Your task to perform on an android device: add a contact in the contacts app Image 0: 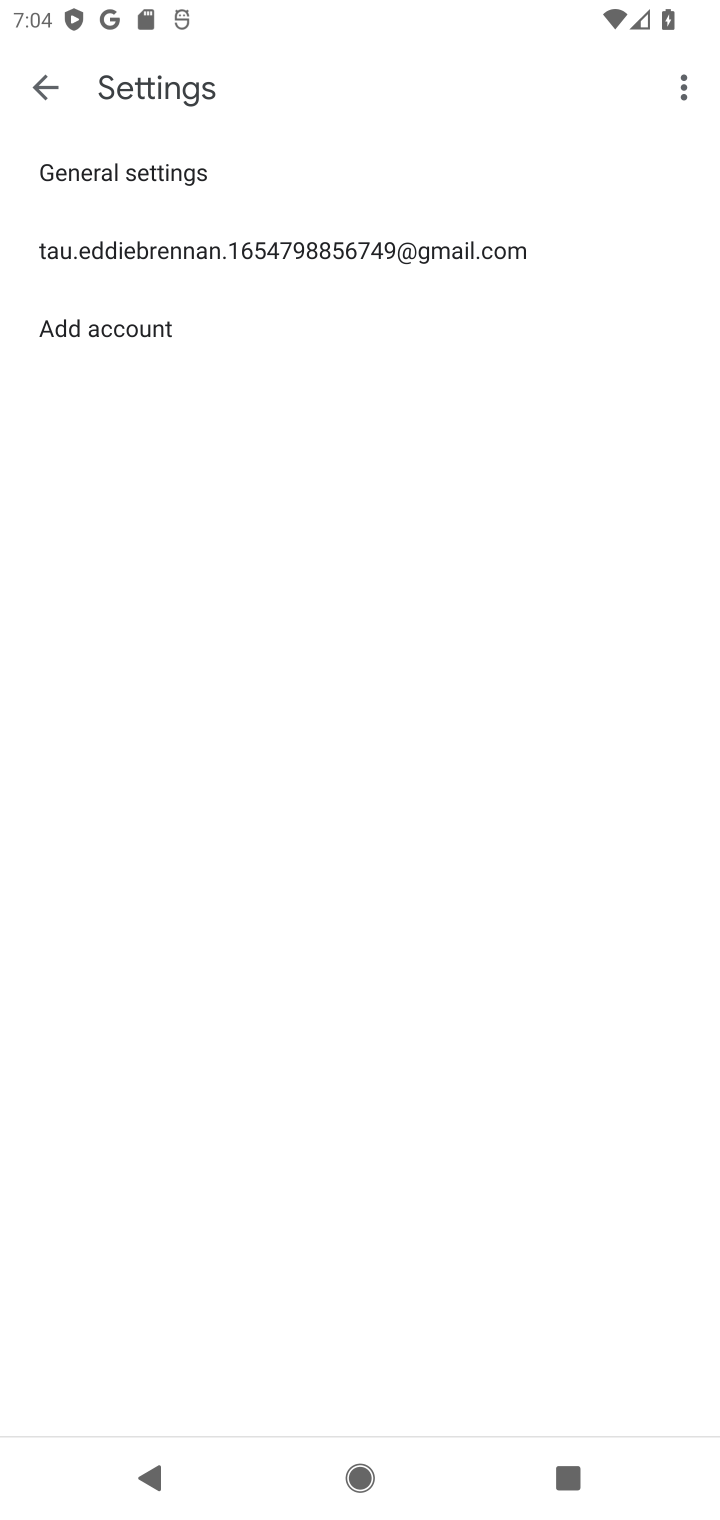
Step 0: press home button
Your task to perform on an android device: add a contact in the contacts app Image 1: 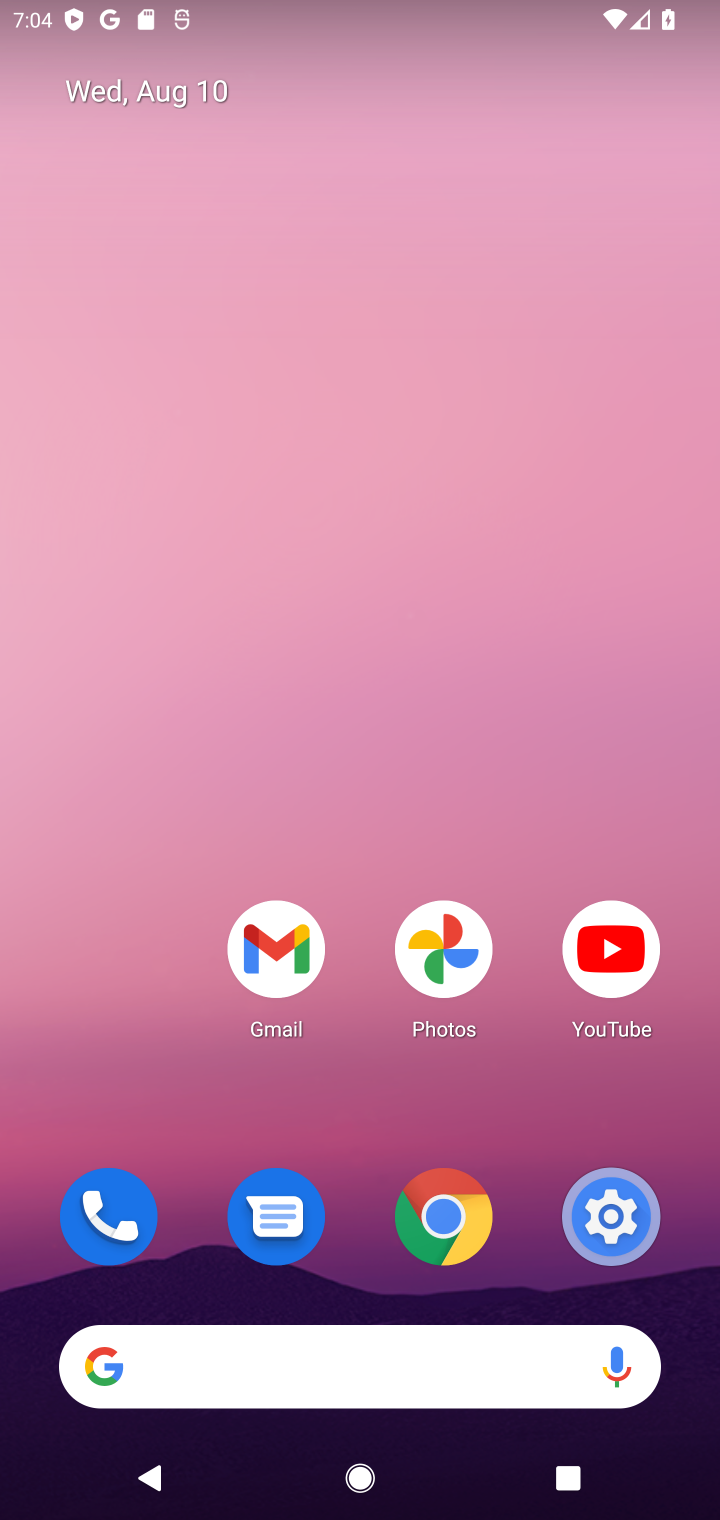
Step 1: click (132, 1210)
Your task to perform on an android device: add a contact in the contacts app Image 2: 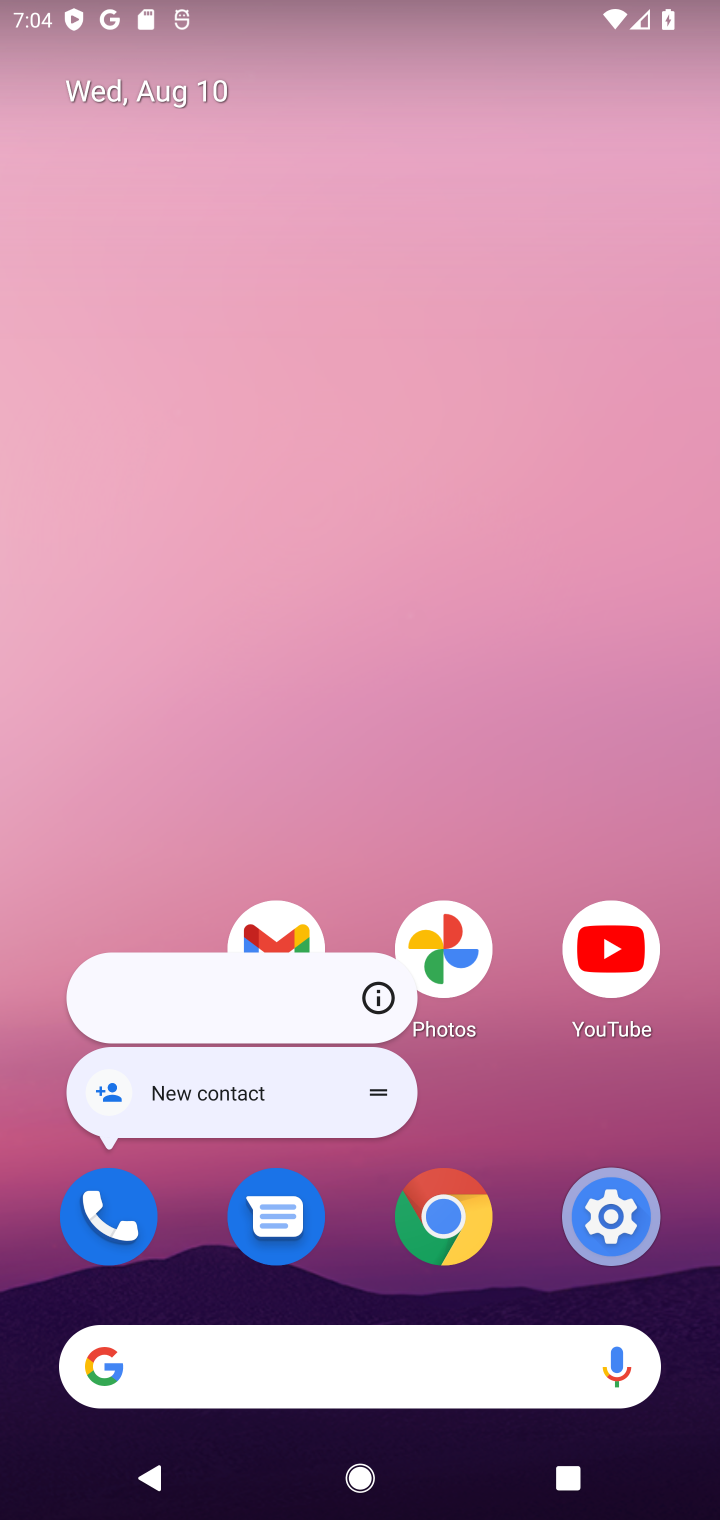
Step 2: click (210, 1102)
Your task to perform on an android device: add a contact in the contacts app Image 3: 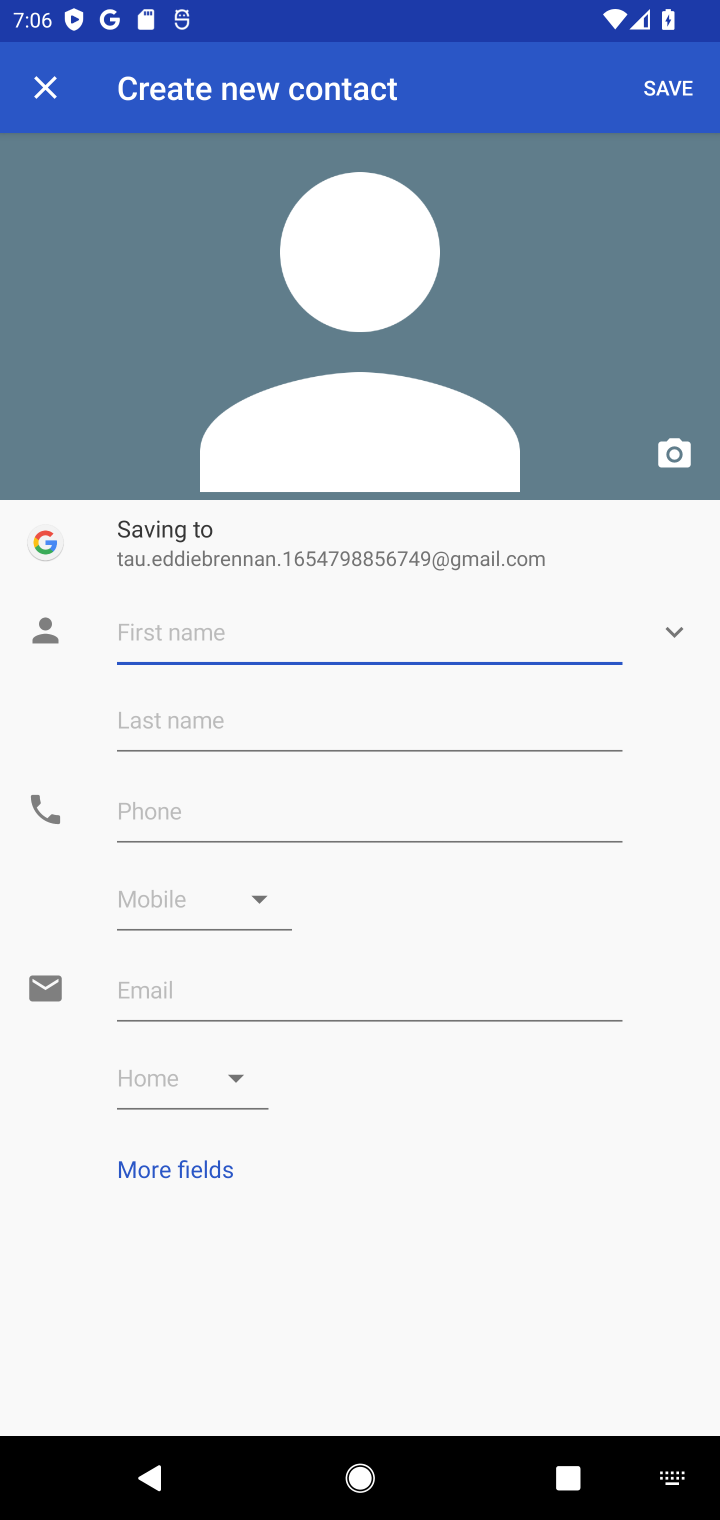
Step 3: type "gfhgfgjhghj"
Your task to perform on an android device: add a contact in the contacts app Image 4: 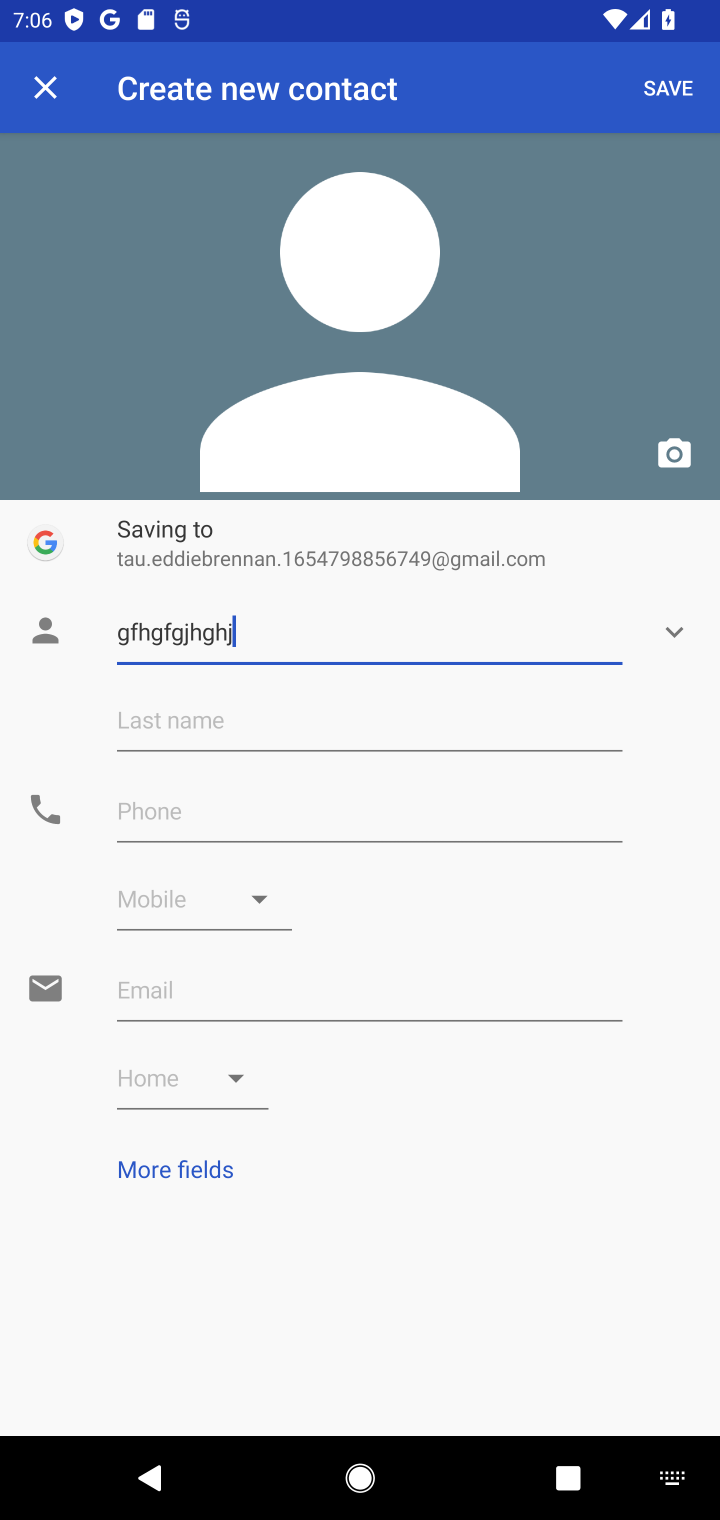
Step 4: click (233, 801)
Your task to perform on an android device: add a contact in the contacts app Image 5: 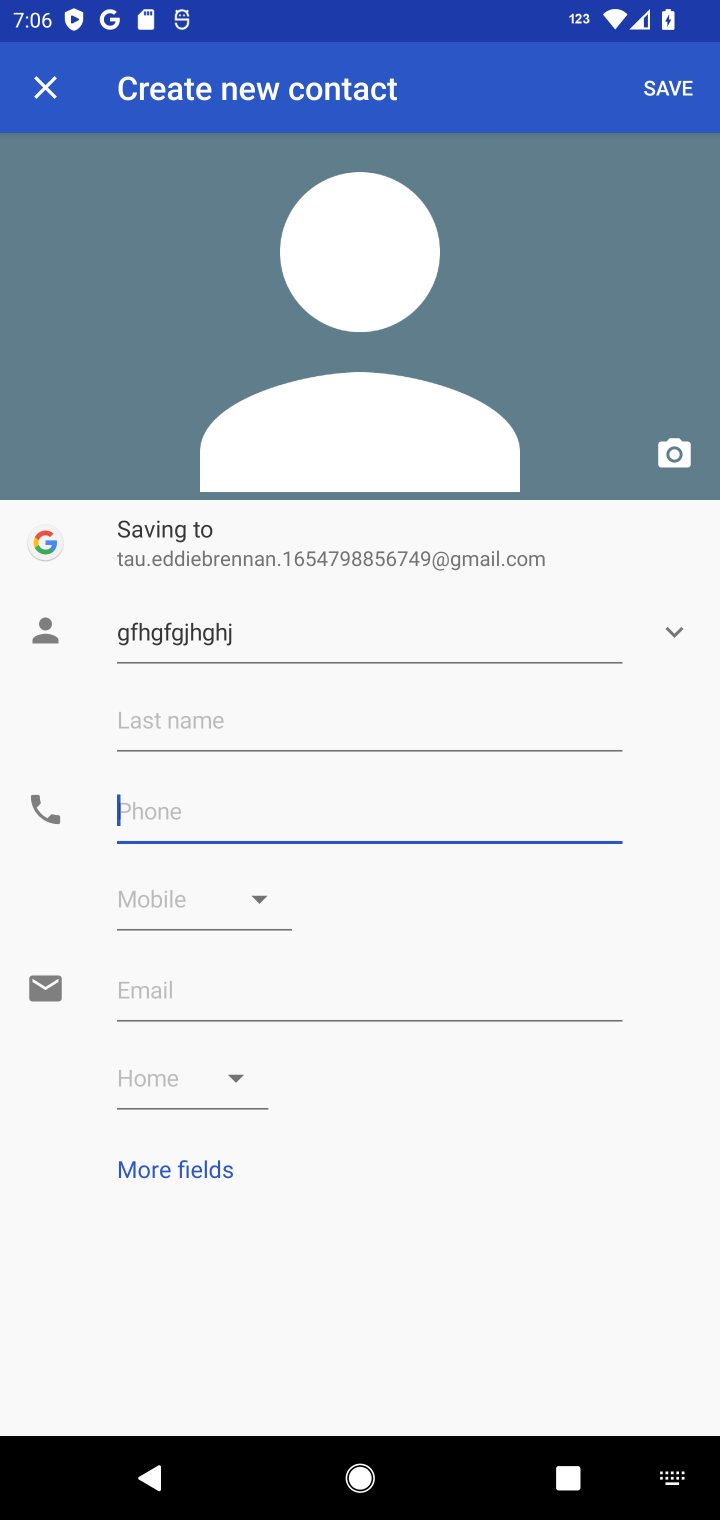
Step 5: type "80754225800"
Your task to perform on an android device: add a contact in the contacts app Image 6: 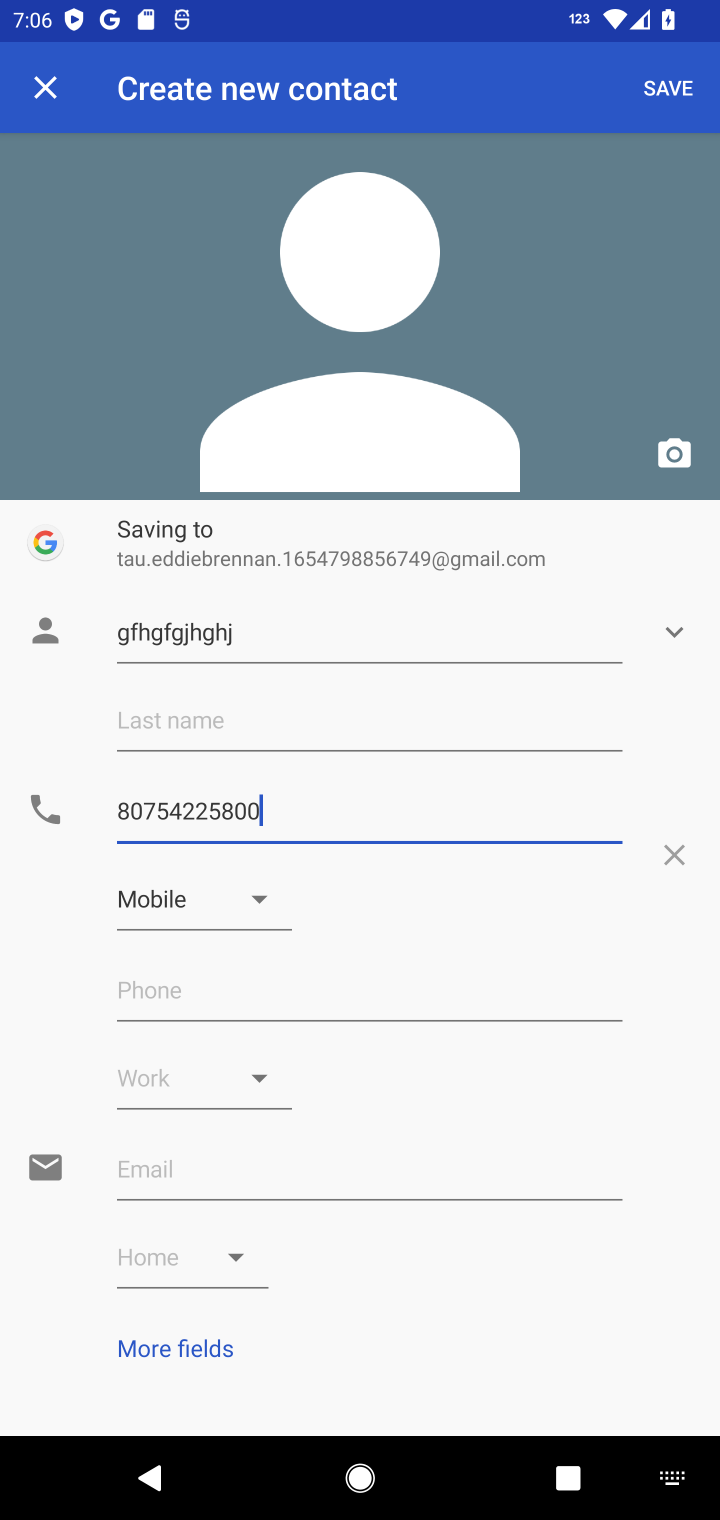
Step 6: type ""
Your task to perform on an android device: add a contact in the contacts app Image 7: 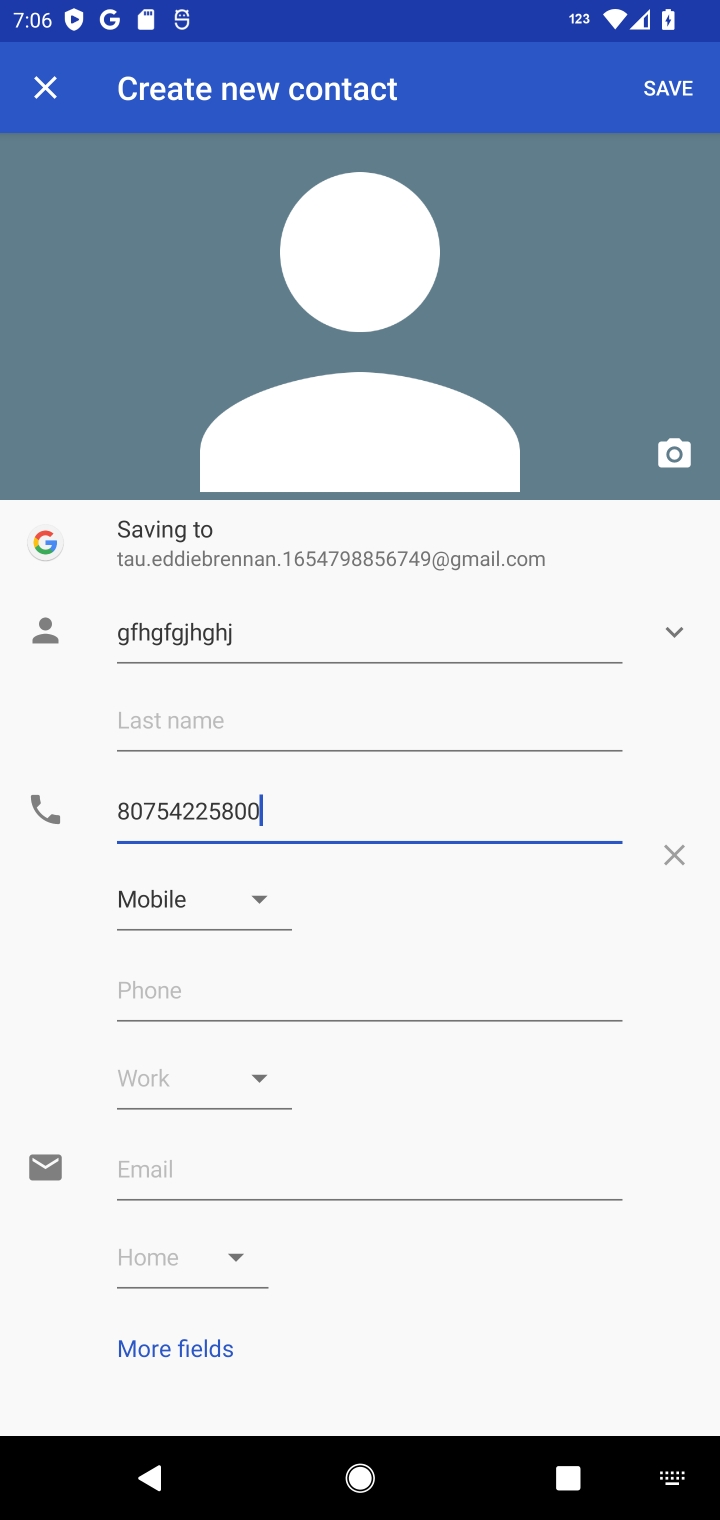
Step 7: click (658, 83)
Your task to perform on an android device: add a contact in the contacts app Image 8: 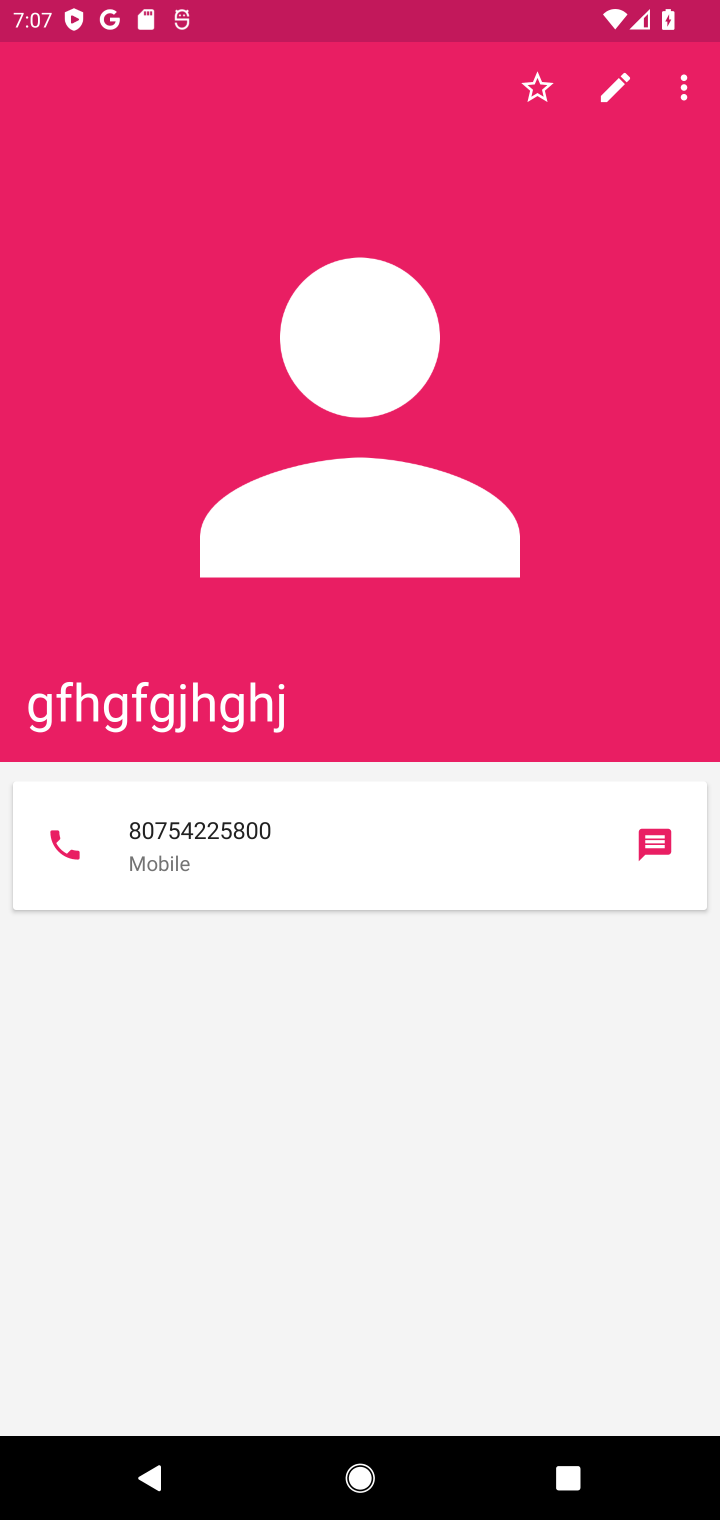
Step 8: task complete